Your task to perform on an android device: turn off javascript in the chrome app Image 0: 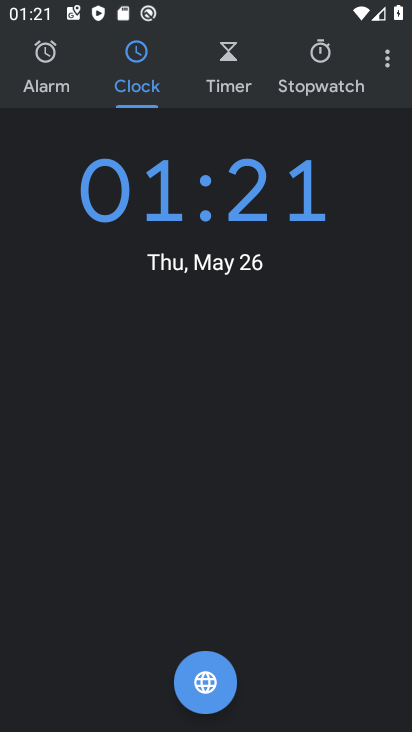
Step 0: press home button
Your task to perform on an android device: turn off javascript in the chrome app Image 1: 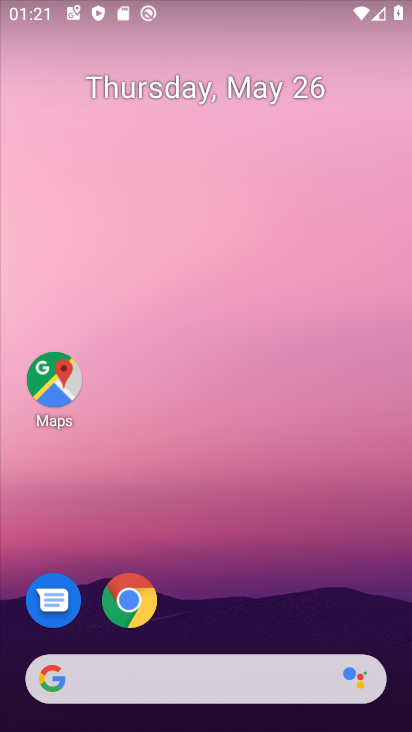
Step 1: click (140, 597)
Your task to perform on an android device: turn off javascript in the chrome app Image 2: 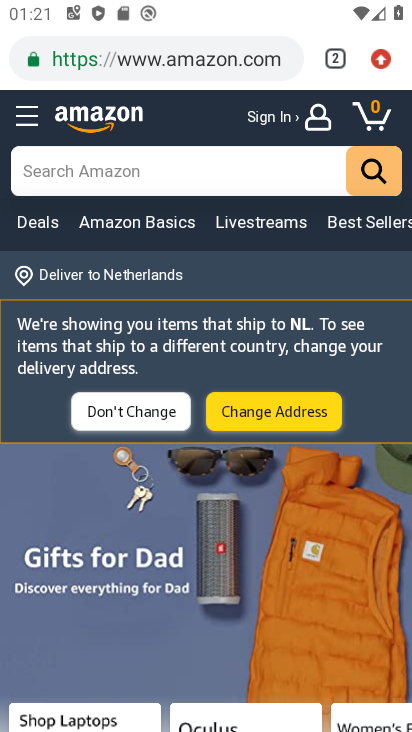
Step 2: click (337, 64)
Your task to perform on an android device: turn off javascript in the chrome app Image 3: 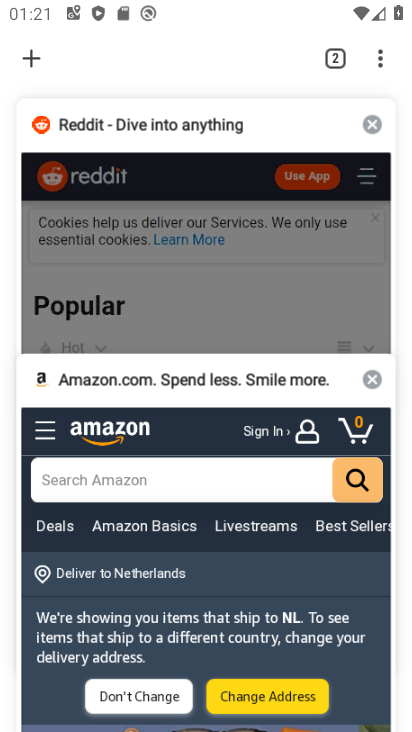
Step 3: click (374, 52)
Your task to perform on an android device: turn off javascript in the chrome app Image 4: 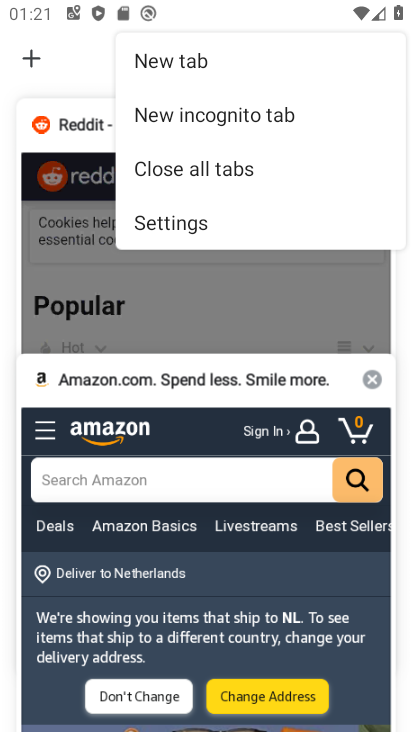
Step 4: click (186, 207)
Your task to perform on an android device: turn off javascript in the chrome app Image 5: 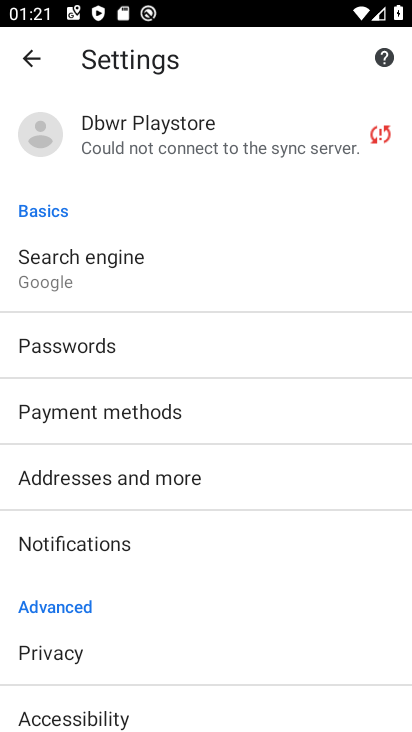
Step 5: drag from (245, 597) to (304, 251)
Your task to perform on an android device: turn off javascript in the chrome app Image 6: 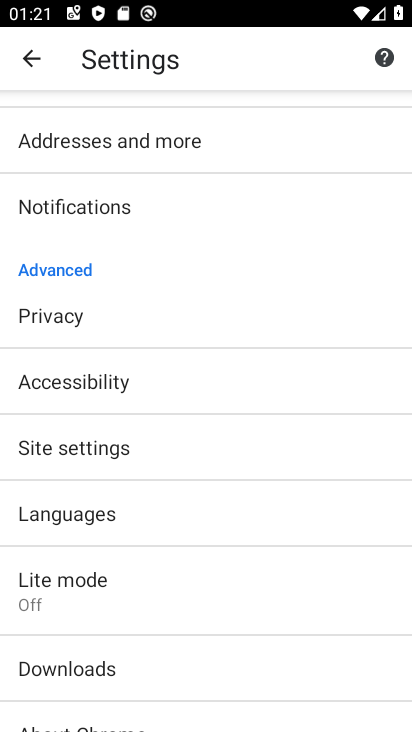
Step 6: click (69, 452)
Your task to perform on an android device: turn off javascript in the chrome app Image 7: 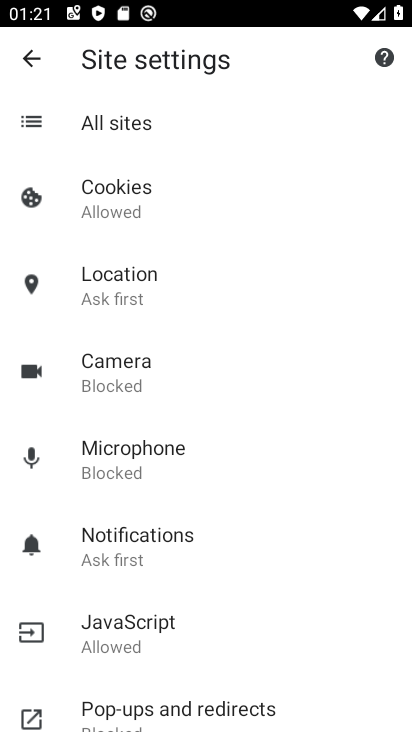
Step 7: click (168, 610)
Your task to perform on an android device: turn off javascript in the chrome app Image 8: 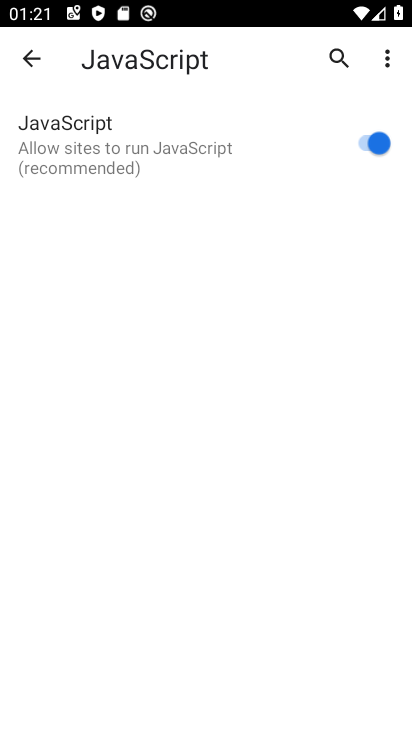
Step 8: click (376, 134)
Your task to perform on an android device: turn off javascript in the chrome app Image 9: 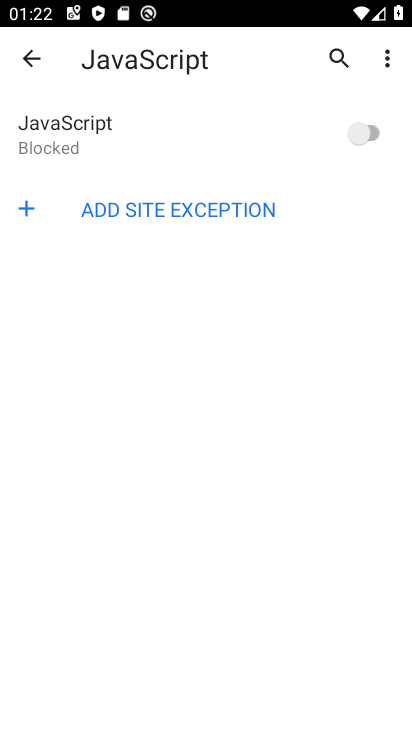
Step 9: task complete